Your task to perform on an android device: see sites visited before in the chrome app Image 0: 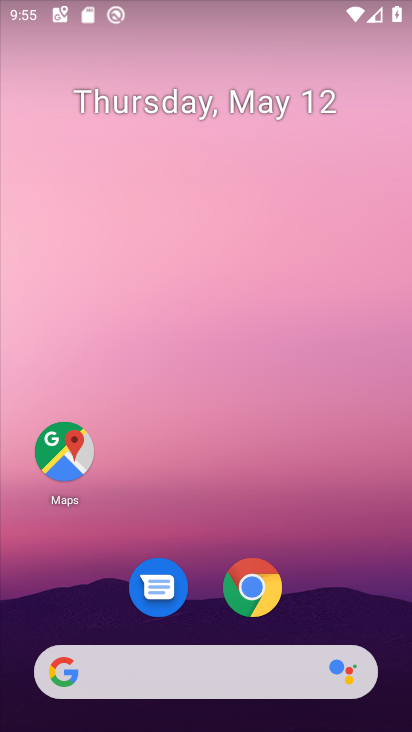
Step 0: drag from (381, 634) to (313, 96)
Your task to perform on an android device: see sites visited before in the chrome app Image 1: 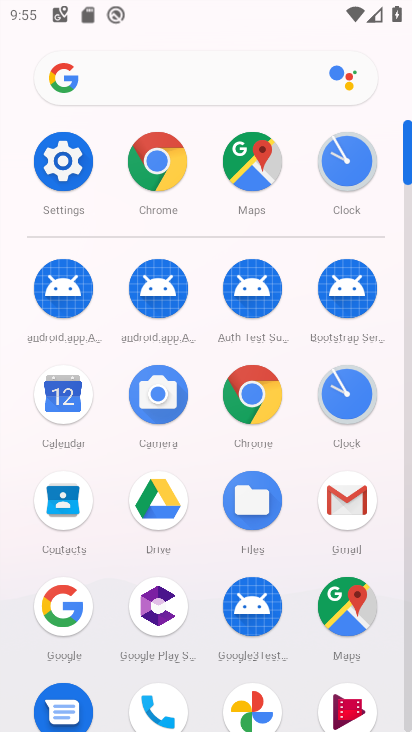
Step 1: click (259, 408)
Your task to perform on an android device: see sites visited before in the chrome app Image 2: 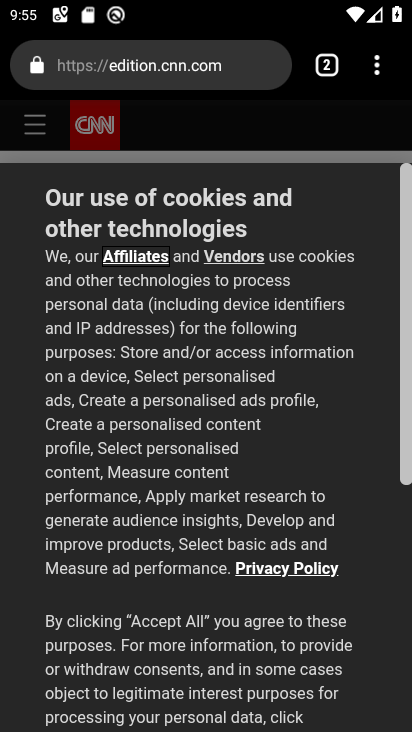
Step 2: press back button
Your task to perform on an android device: see sites visited before in the chrome app Image 3: 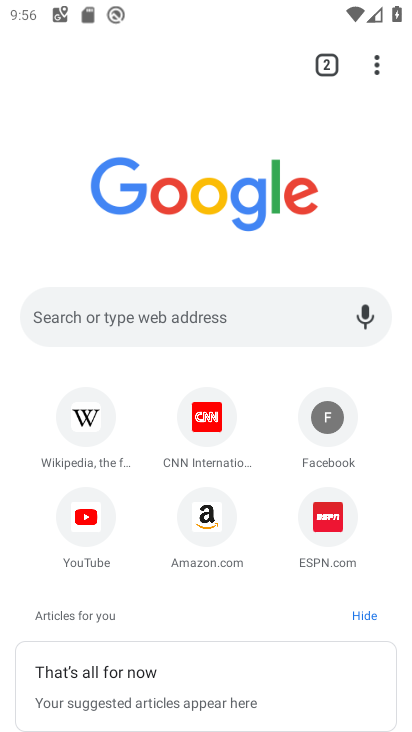
Step 3: click (374, 66)
Your task to perform on an android device: see sites visited before in the chrome app Image 4: 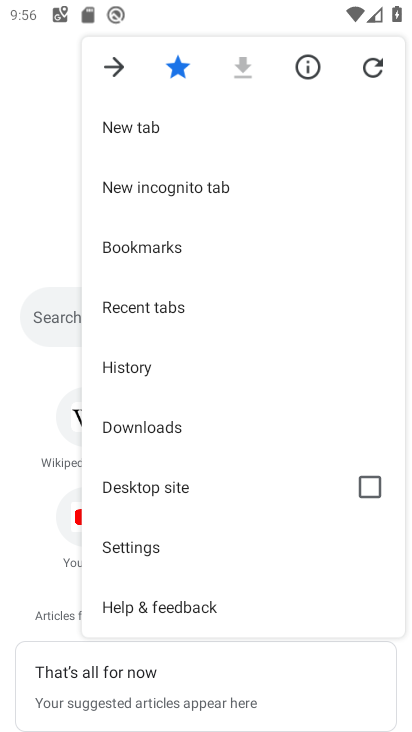
Step 4: click (191, 386)
Your task to perform on an android device: see sites visited before in the chrome app Image 5: 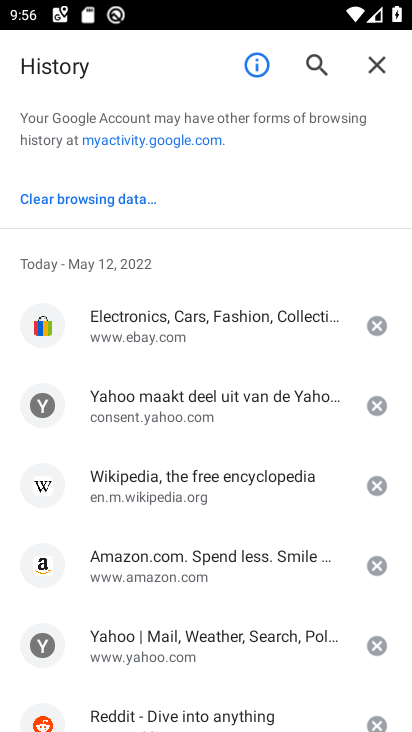
Step 5: click (182, 330)
Your task to perform on an android device: see sites visited before in the chrome app Image 6: 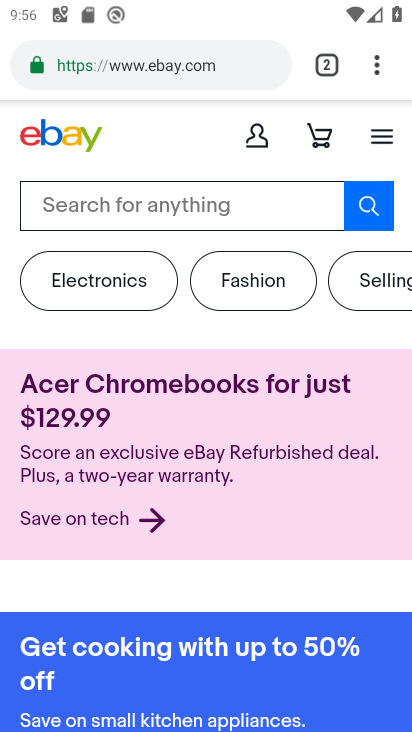
Step 6: task complete